Your task to perform on an android device: move a message to another label in the gmail app Image 0: 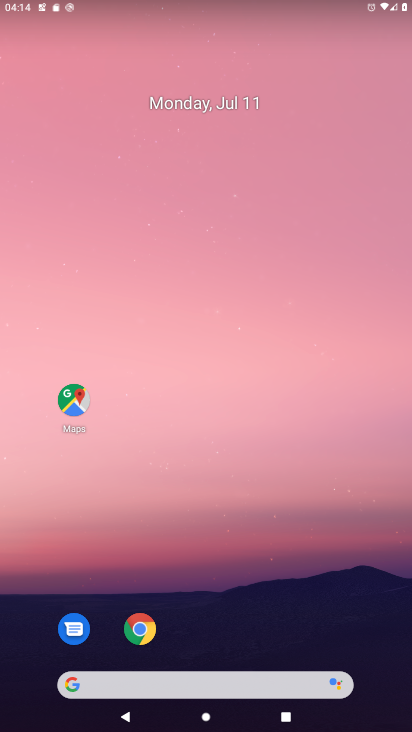
Step 0: drag from (212, 646) to (208, 67)
Your task to perform on an android device: move a message to another label in the gmail app Image 1: 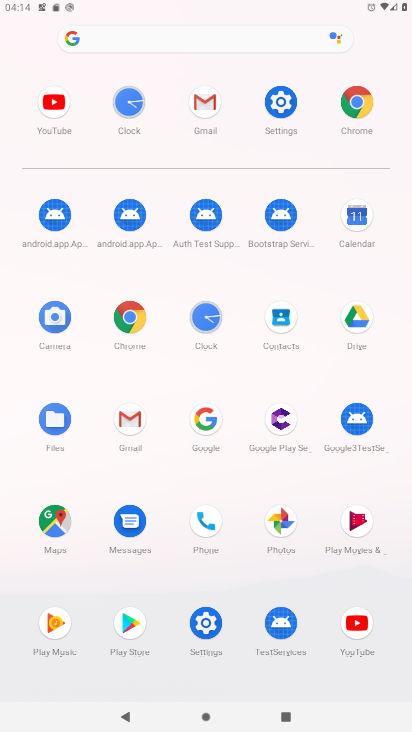
Step 1: click (127, 428)
Your task to perform on an android device: move a message to another label in the gmail app Image 2: 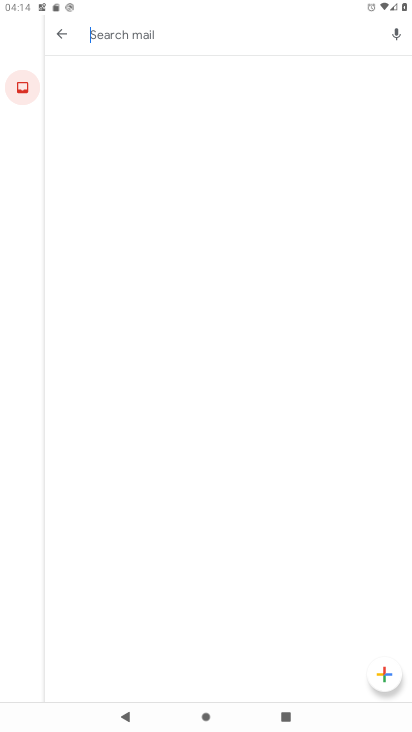
Step 2: click (58, 37)
Your task to perform on an android device: move a message to another label in the gmail app Image 3: 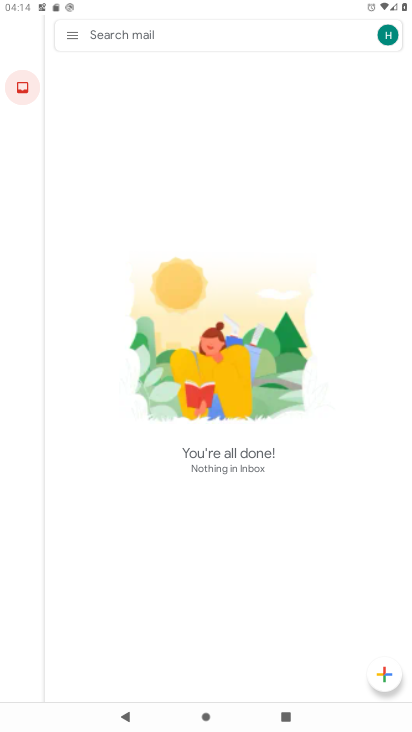
Step 3: click (69, 38)
Your task to perform on an android device: move a message to another label in the gmail app Image 4: 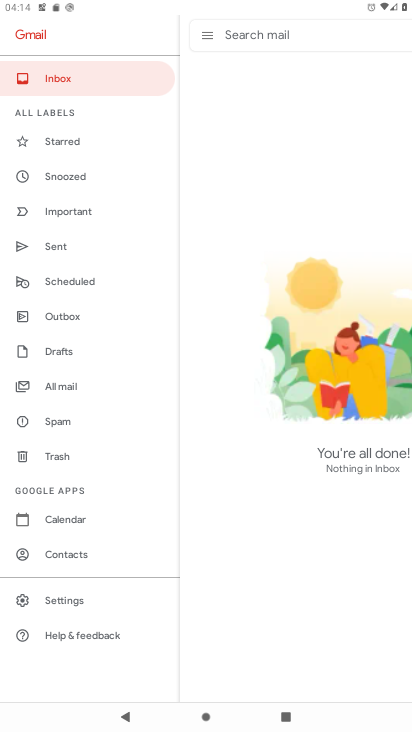
Step 4: click (63, 384)
Your task to perform on an android device: move a message to another label in the gmail app Image 5: 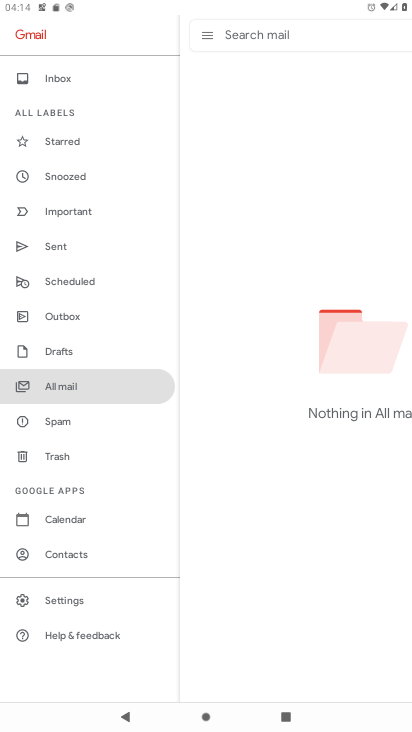
Step 5: drag from (174, 348) to (71, 348)
Your task to perform on an android device: move a message to another label in the gmail app Image 6: 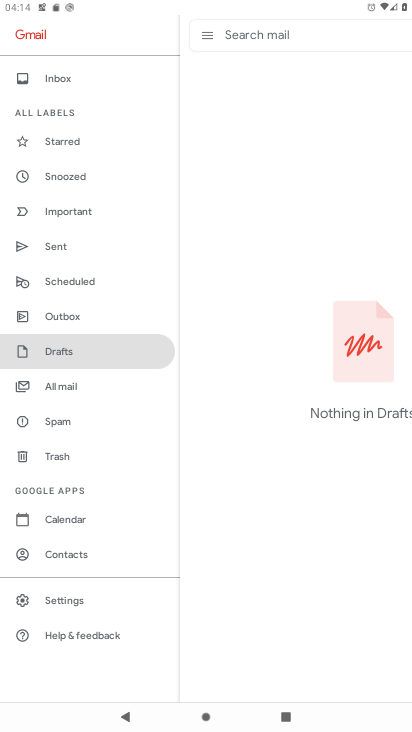
Step 6: click (78, 393)
Your task to perform on an android device: move a message to another label in the gmail app Image 7: 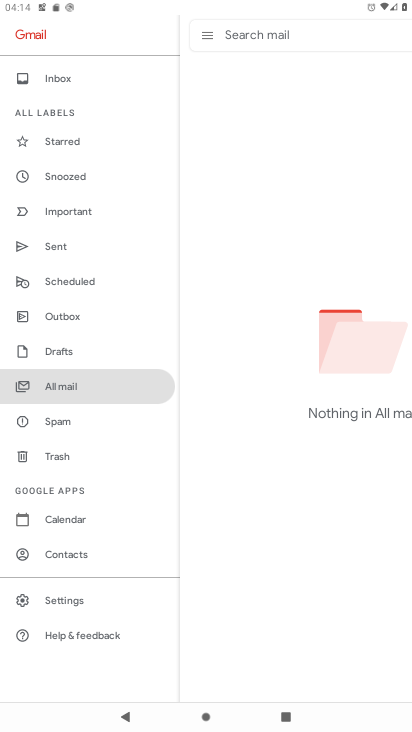
Step 7: task complete